Your task to perform on an android device: Show me popular videos on Youtube Image 0: 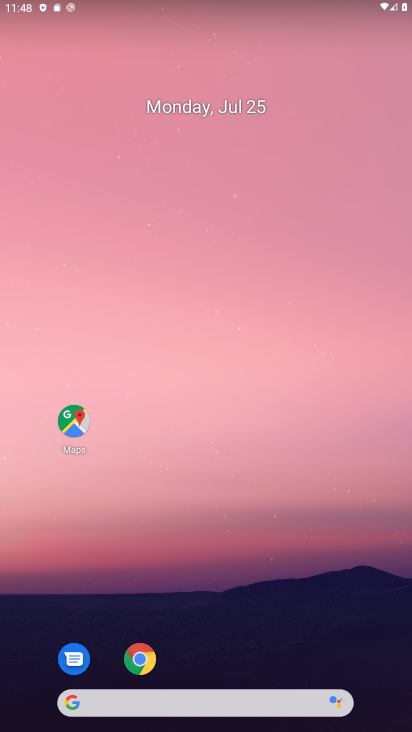
Step 0: drag from (287, 668) to (235, 0)
Your task to perform on an android device: Show me popular videos on Youtube Image 1: 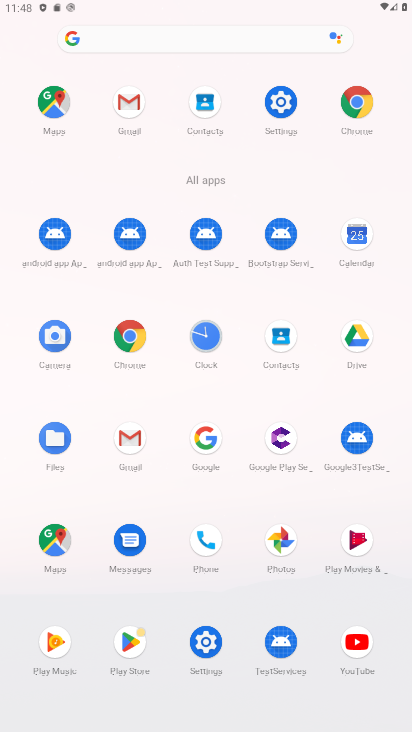
Step 1: click (355, 649)
Your task to perform on an android device: Show me popular videos on Youtube Image 2: 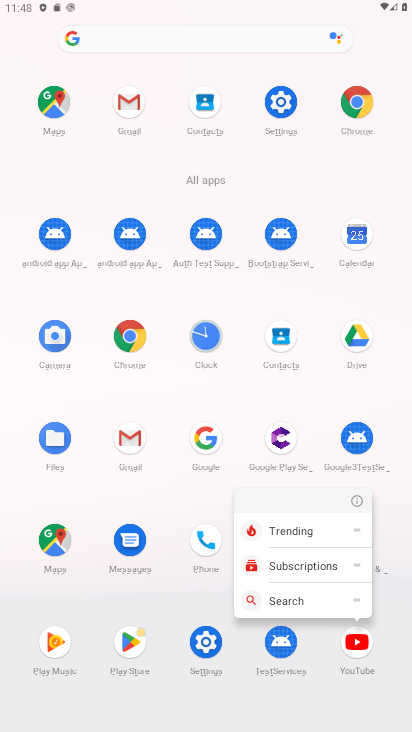
Step 2: click (349, 655)
Your task to perform on an android device: Show me popular videos on Youtube Image 3: 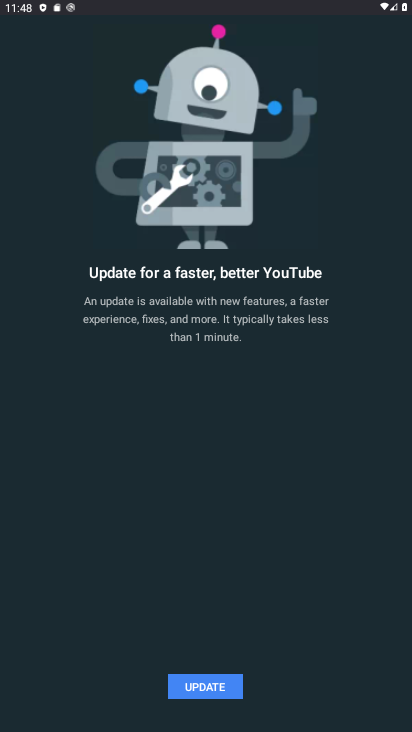
Step 3: click (229, 681)
Your task to perform on an android device: Show me popular videos on Youtube Image 4: 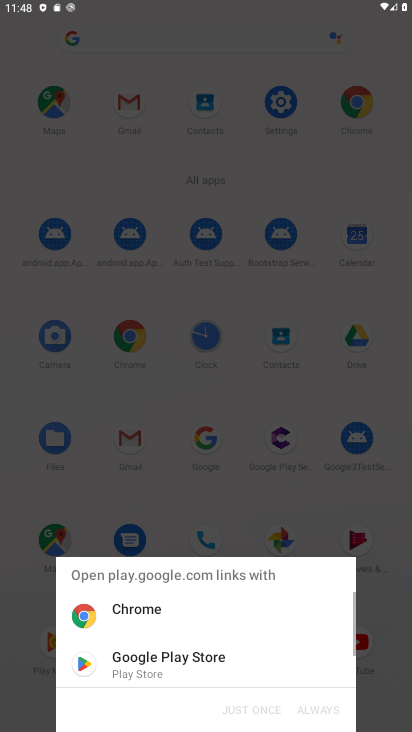
Step 4: click (205, 660)
Your task to perform on an android device: Show me popular videos on Youtube Image 5: 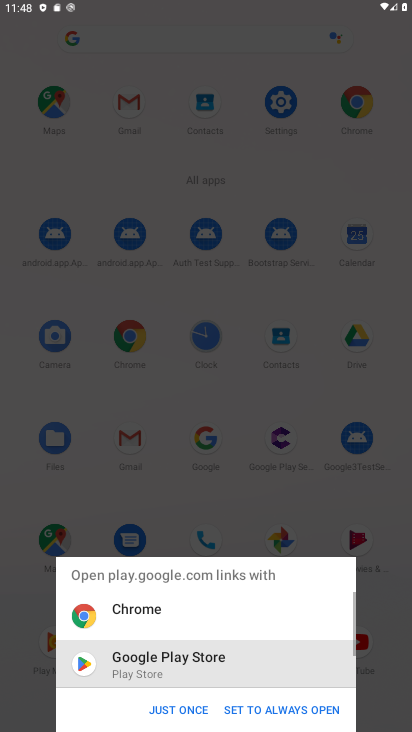
Step 5: click (185, 711)
Your task to perform on an android device: Show me popular videos on Youtube Image 6: 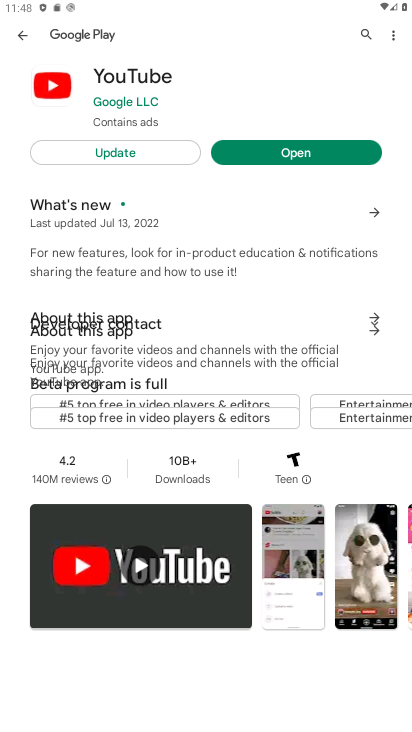
Step 6: click (112, 146)
Your task to perform on an android device: Show me popular videos on Youtube Image 7: 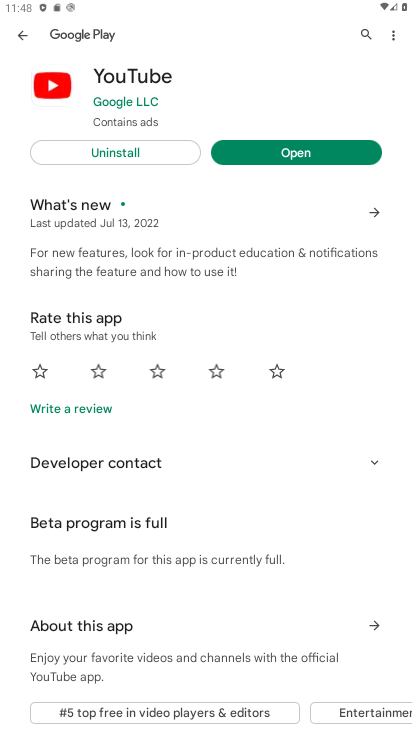
Step 7: click (302, 151)
Your task to perform on an android device: Show me popular videos on Youtube Image 8: 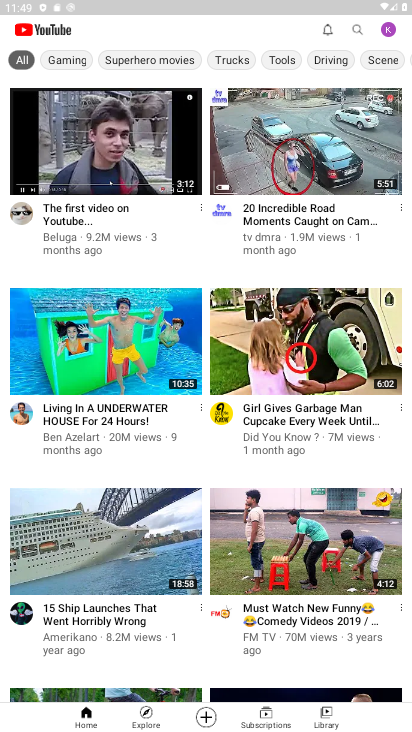
Step 8: click (363, 28)
Your task to perform on an android device: Show me popular videos on Youtube Image 9: 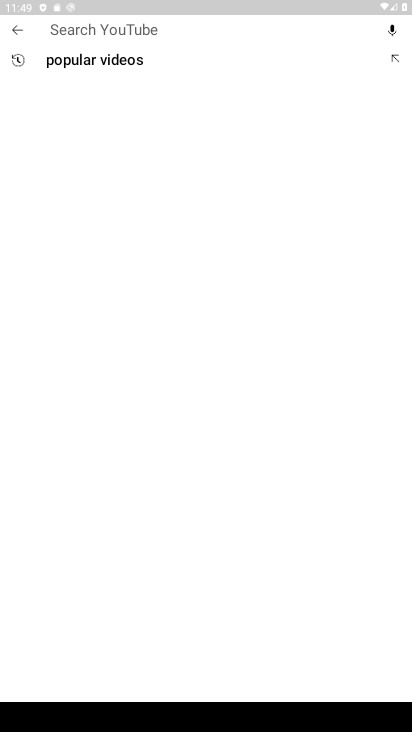
Step 9: type " popular videos on Youtube"
Your task to perform on an android device: Show me popular videos on Youtube Image 10: 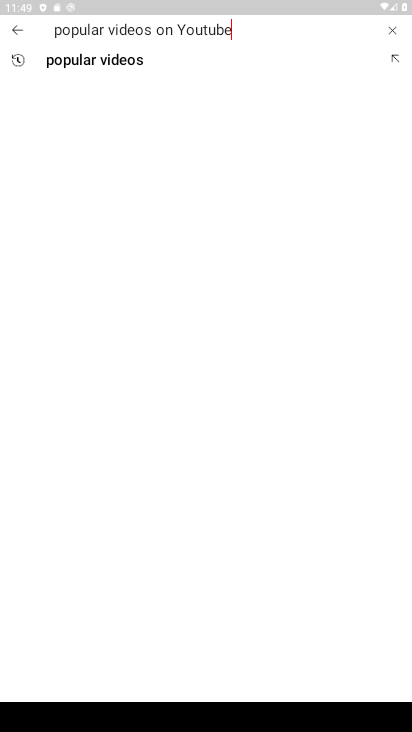
Step 10: type ""
Your task to perform on an android device: Show me popular videos on Youtube Image 11: 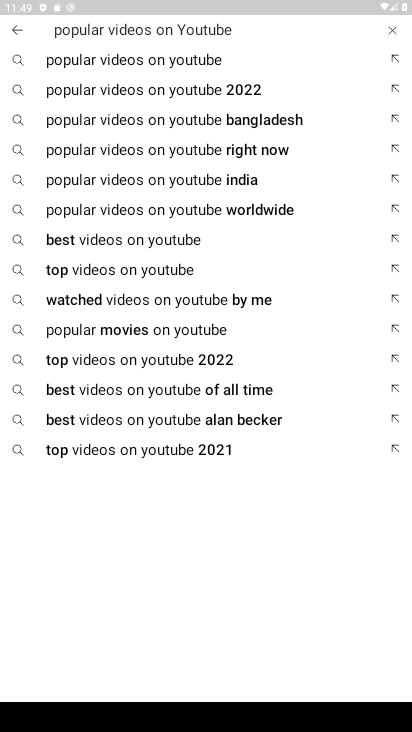
Step 11: click (136, 61)
Your task to perform on an android device: Show me popular videos on Youtube Image 12: 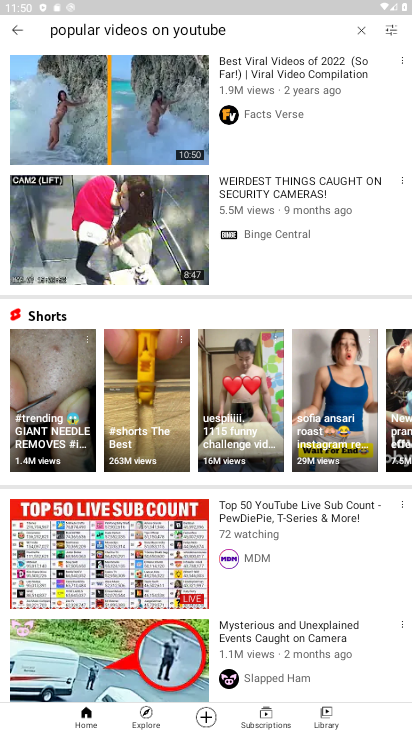
Step 12: task complete